Your task to perform on an android device: Open Wikipedia Image 0: 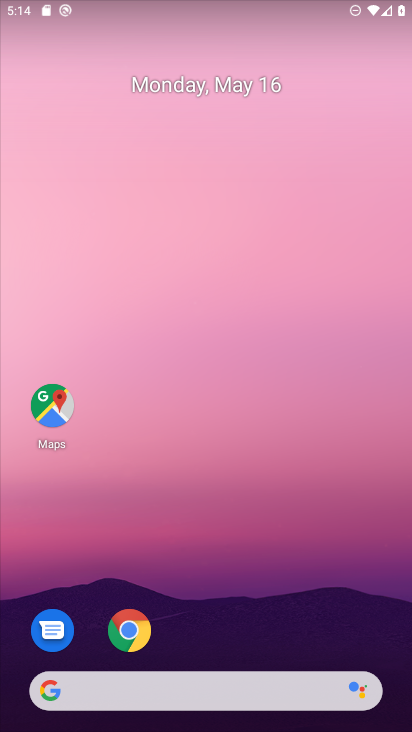
Step 0: click (143, 636)
Your task to perform on an android device: Open Wikipedia Image 1: 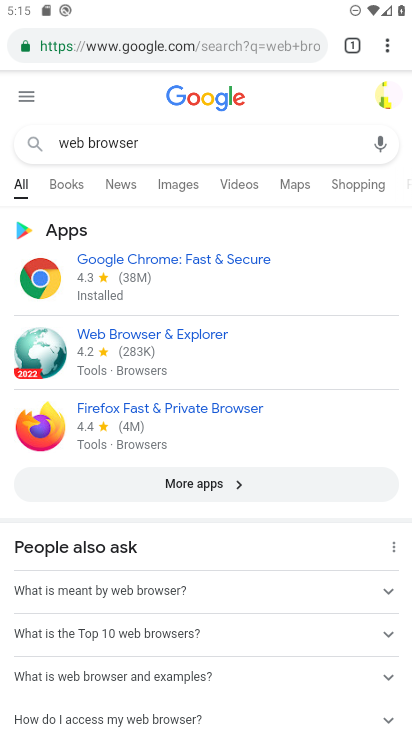
Step 1: click (173, 146)
Your task to perform on an android device: Open Wikipedia Image 2: 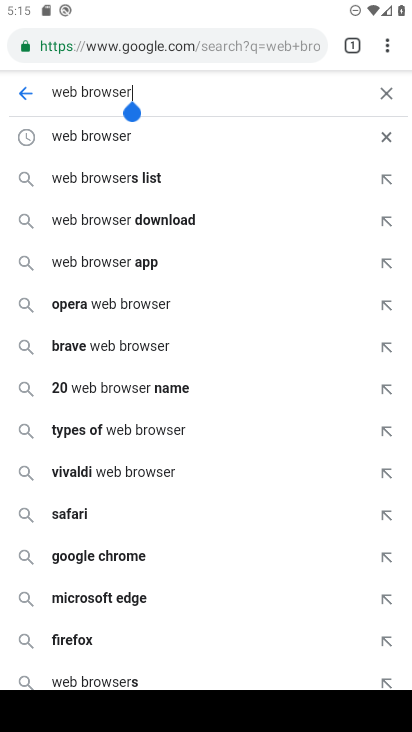
Step 2: click (240, 58)
Your task to perform on an android device: Open Wikipedia Image 3: 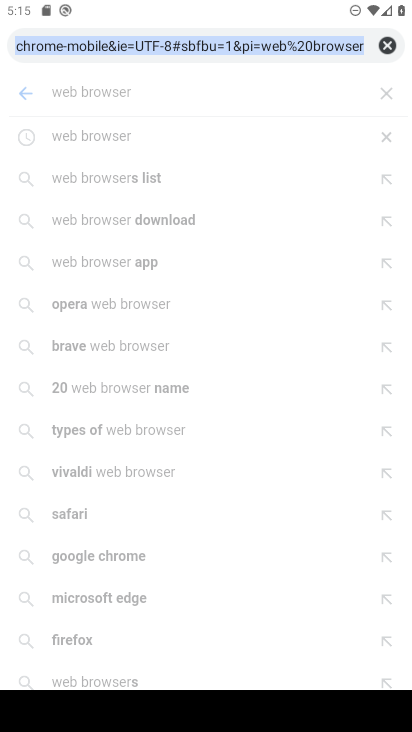
Step 3: click (394, 34)
Your task to perform on an android device: Open Wikipedia Image 4: 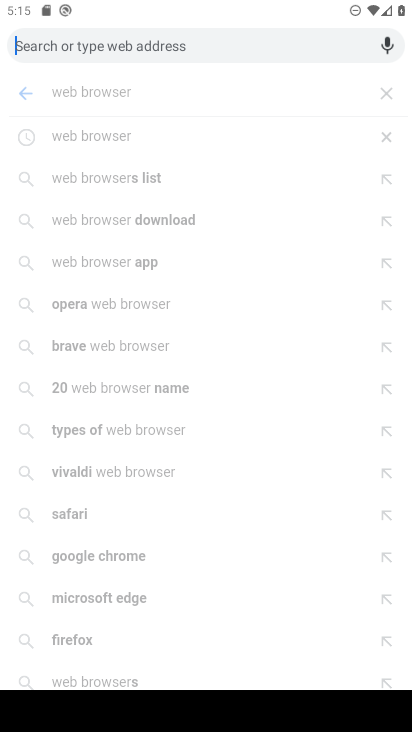
Step 4: type "Wikipedia"
Your task to perform on an android device: Open Wikipedia Image 5: 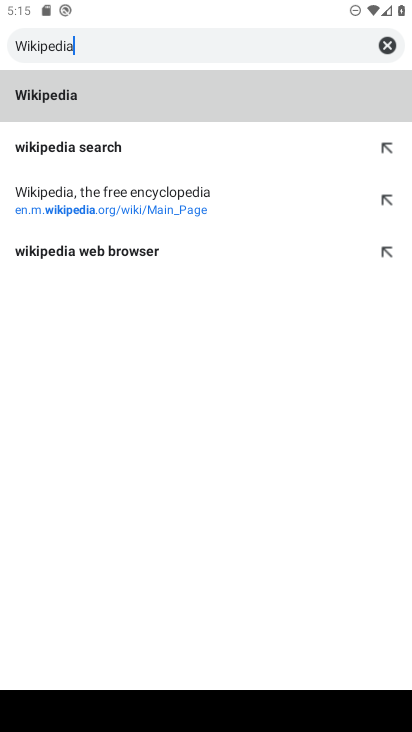
Step 5: click (114, 98)
Your task to perform on an android device: Open Wikipedia Image 6: 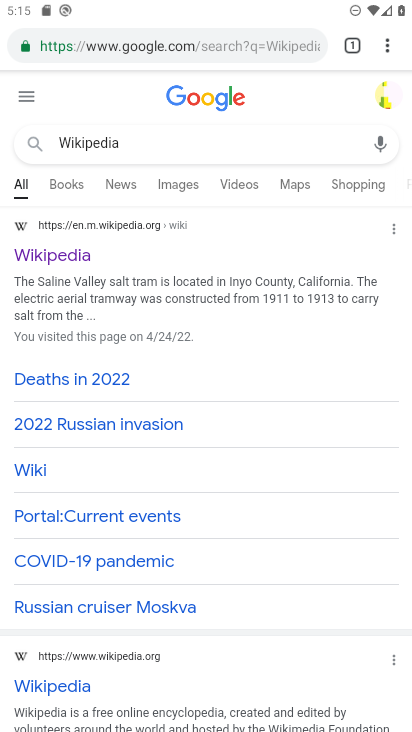
Step 6: task complete